Your task to perform on an android device: Do I have any events today? Image 0: 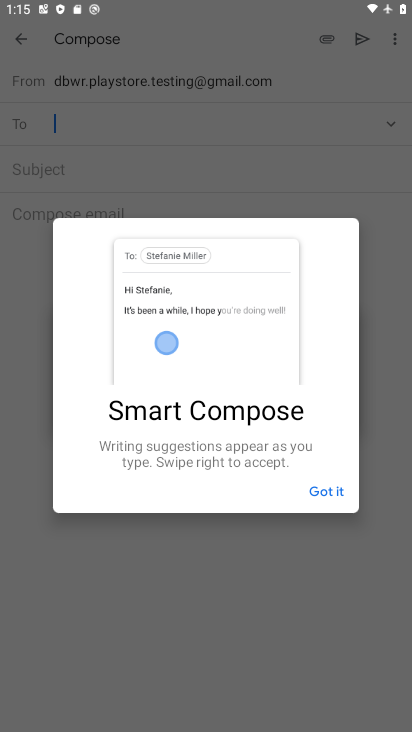
Step 0: press home button
Your task to perform on an android device: Do I have any events today? Image 1: 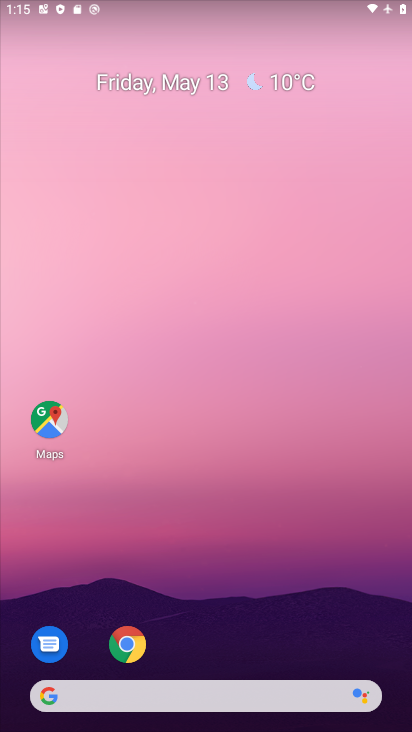
Step 1: drag from (204, 724) to (210, 107)
Your task to perform on an android device: Do I have any events today? Image 2: 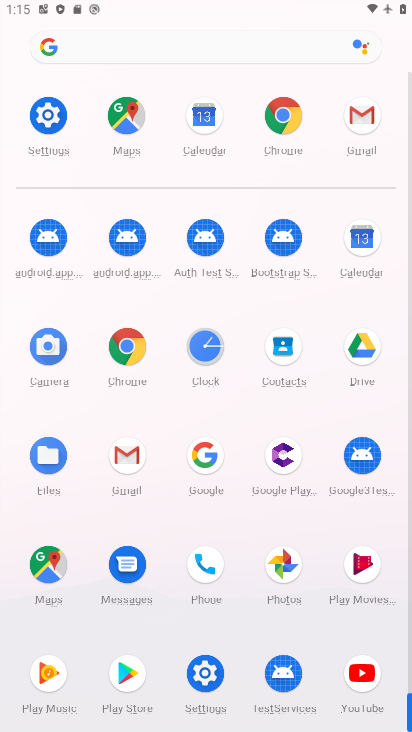
Step 2: click (366, 236)
Your task to perform on an android device: Do I have any events today? Image 3: 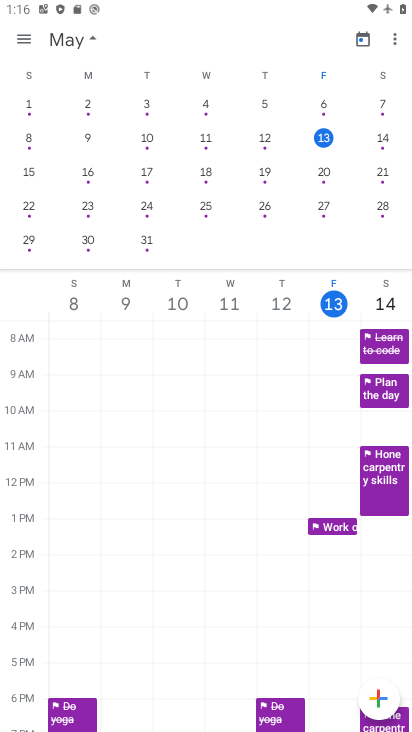
Step 3: task complete